Your task to perform on an android device: turn on notifications settings in the gmail app Image 0: 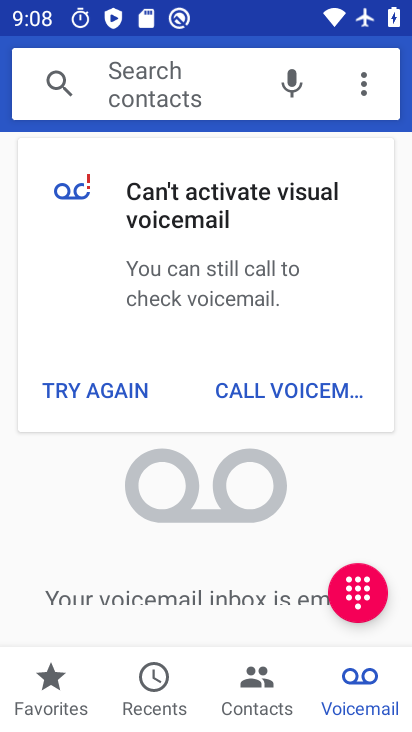
Step 0: press home button
Your task to perform on an android device: turn on notifications settings in the gmail app Image 1: 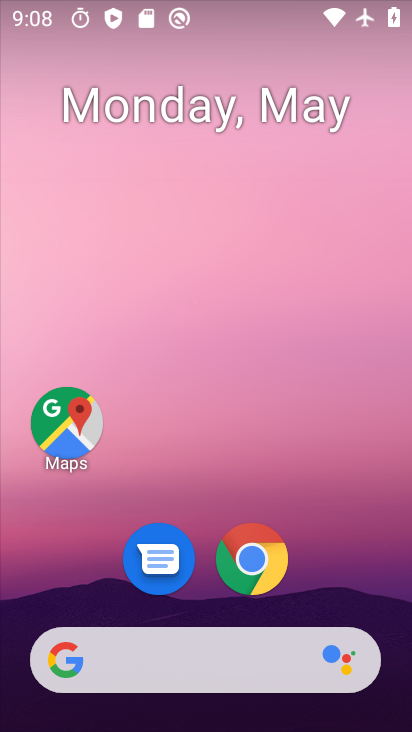
Step 1: drag from (350, 599) to (275, 3)
Your task to perform on an android device: turn on notifications settings in the gmail app Image 2: 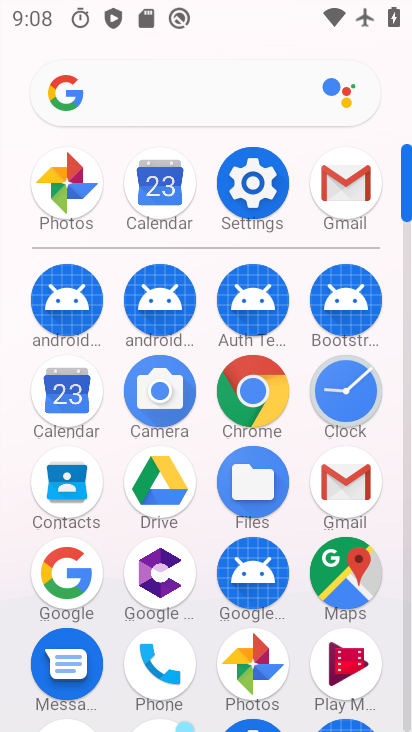
Step 2: click (347, 184)
Your task to perform on an android device: turn on notifications settings in the gmail app Image 3: 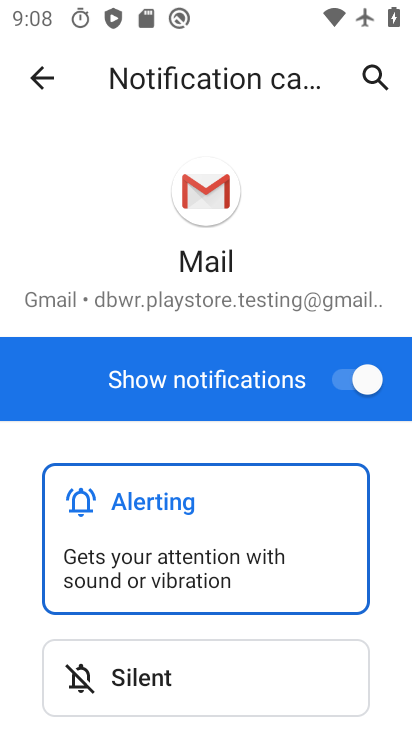
Step 3: task complete